Your task to perform on an android device: Open the Play Movies app and select the watchlist tab. Image 0: 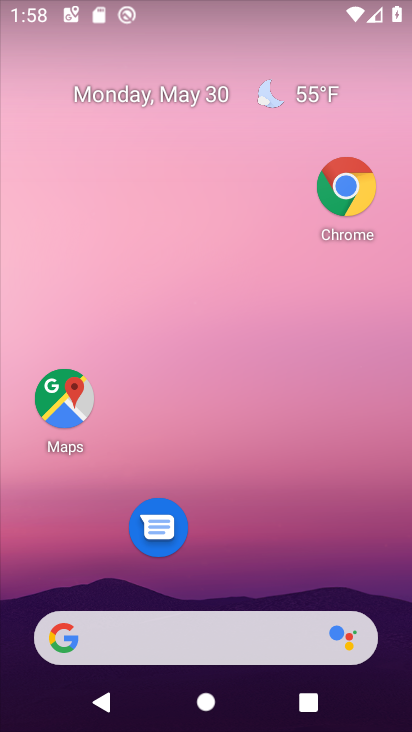
Step 0: drag from (241, 129) to (238, 3)
Your task to perform on an android device: Open the Play Movies app and select the watchlist tab. Image 1: 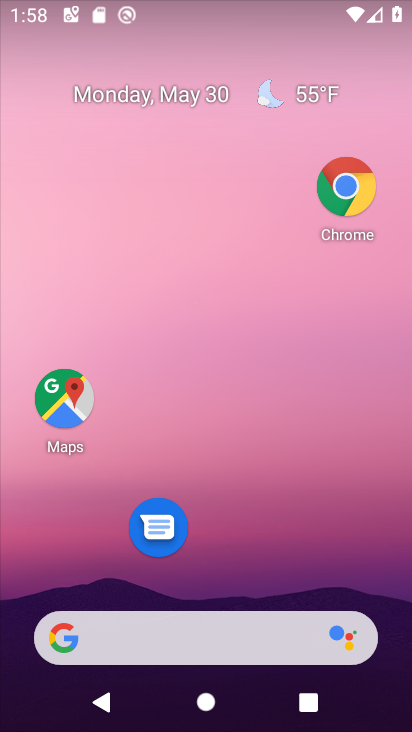
Step 1: drag from (215, 562) to (220, 93)
Your task to perform on an android device: Open the Play Movies app and select the watchlist tab. Image 2: 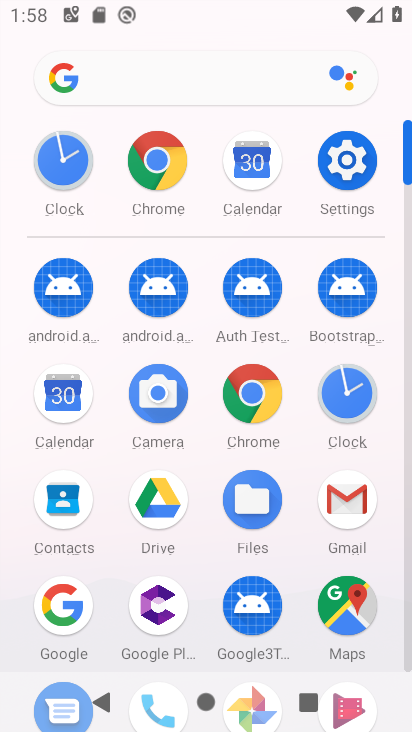
Step 2: drag from (185, 546) to (212, 168)
Your task to perform on an android device: Open the Play Movies app and select the watchlist tab. Image 3: 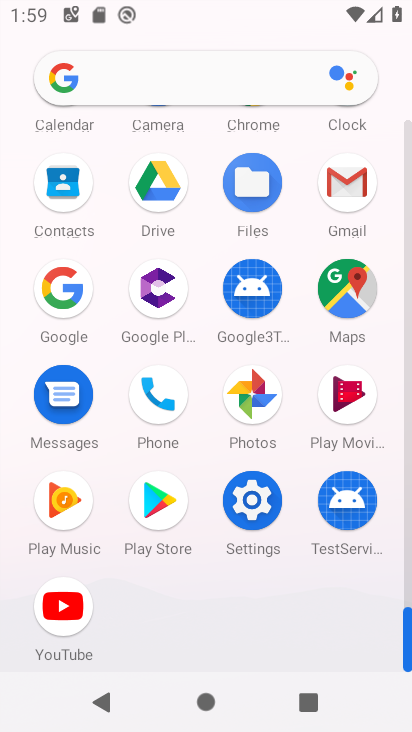
Step 3: click (348, 391)
Your task to perform on an android device: Open the Play Movies app and select the watchlist tab. Image 4: 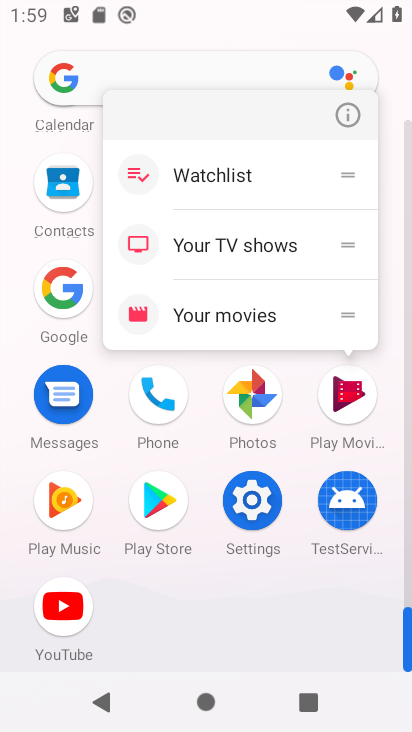
Step 4: click (339, 114)
Your task to perform on an android device: Open the Play Movies app and select the watchlist tab. Image 5: 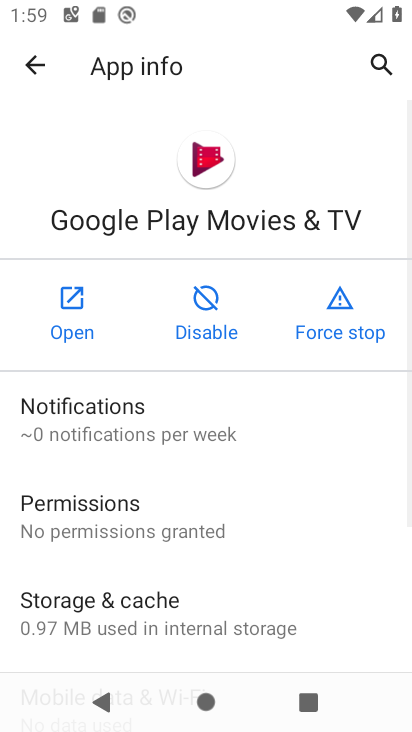
Step 5: click (86, 300)
Your task to perform on an android device: Open the Play Movies app and select the watchlist tab. Image 6: 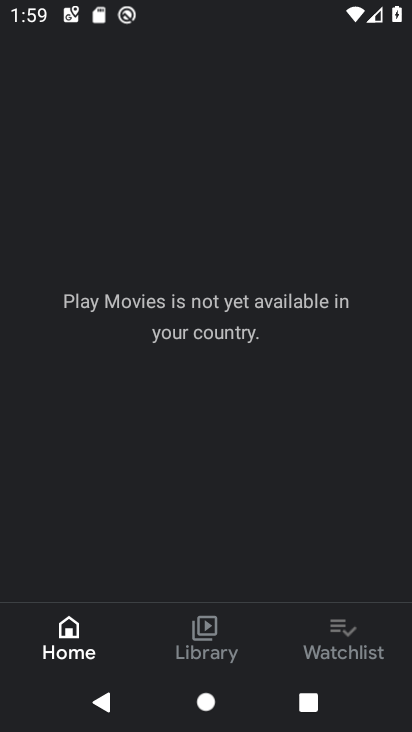
Step 6: click (344, 626)
Your task to perform on an android device: Open the Play Movies app and select the watchlist tab. Image 7: 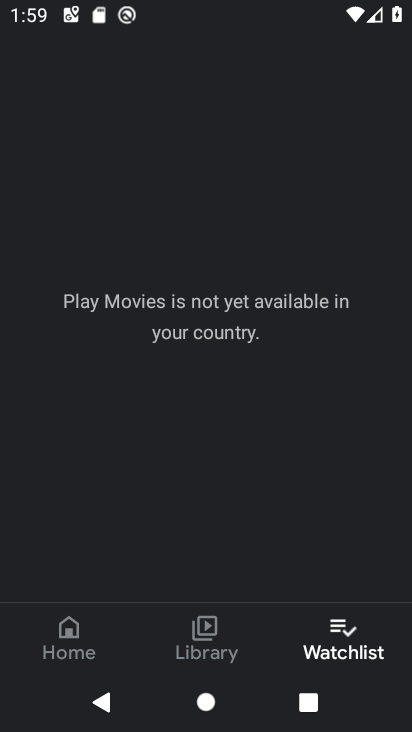
Step 7: click (300, 208)
Your task to perform on an android device: Open the Play Movies app and select the watchlist tab. Image 8: 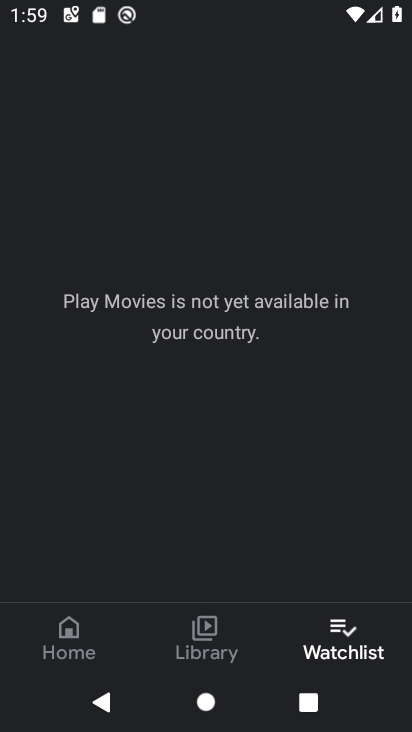
Step 8: click (329, 616)
Your task to perform on an android device: Open the Play Movies app and select the watchlist tab. Image 9: 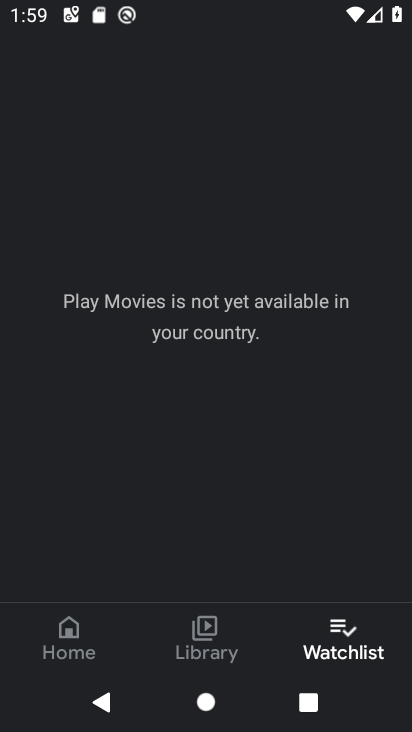
Step 9: task complete